Your task to perform on an android device: read, delete, or share a saved page in the chrome app Image 0: 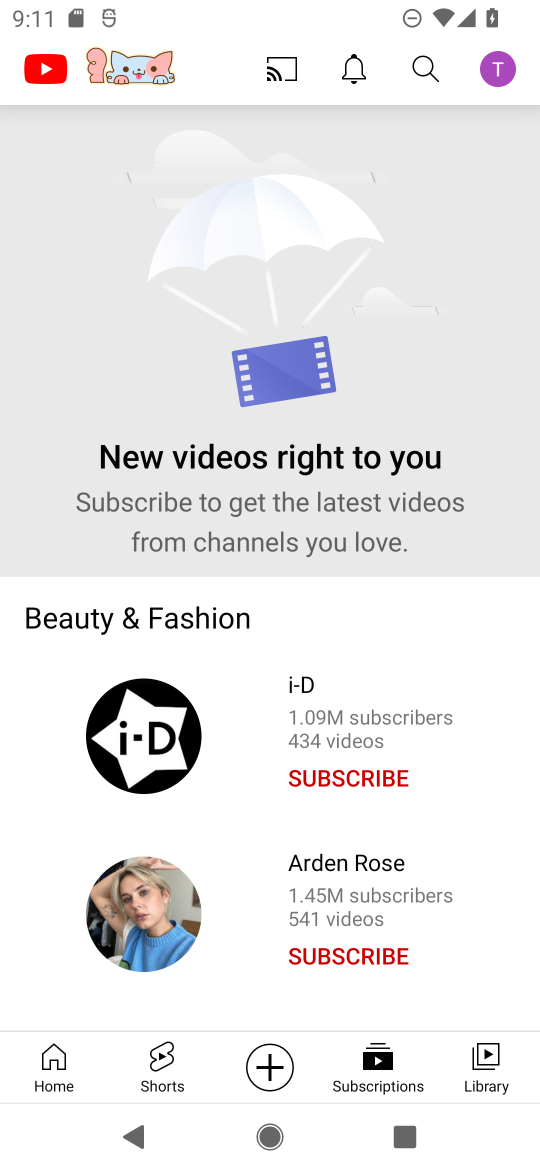
Step 0: press home button
Your task to perform on an android device: read, delete, or share a saved page in the chrome app Image 1: 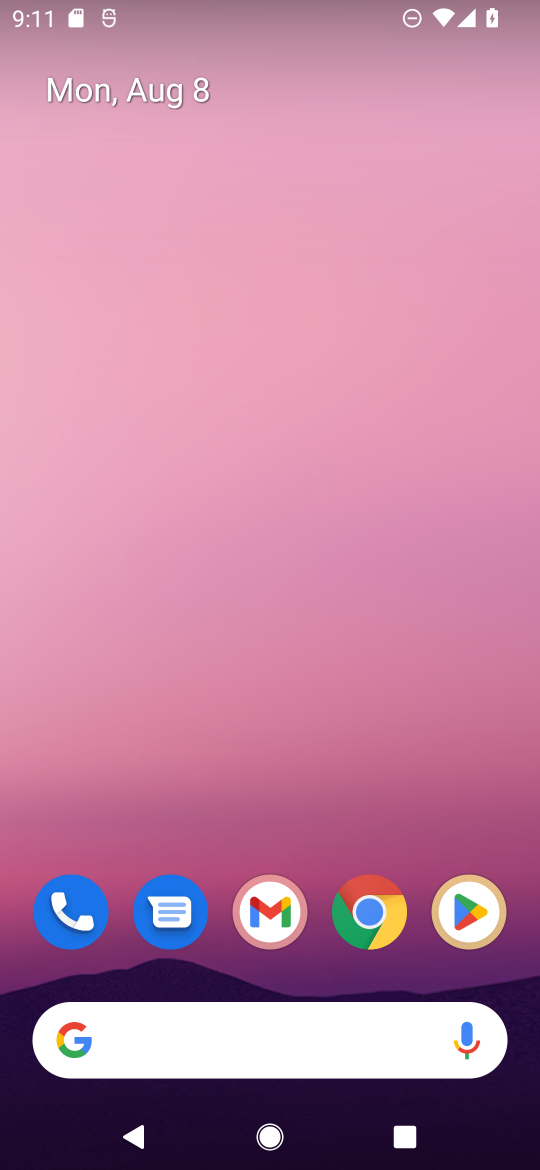
Step 1: drag from (426, 958) to (209, 56)
Your task to perform on an android device: read, delete, or share a saved page in the chrome app Image 2: 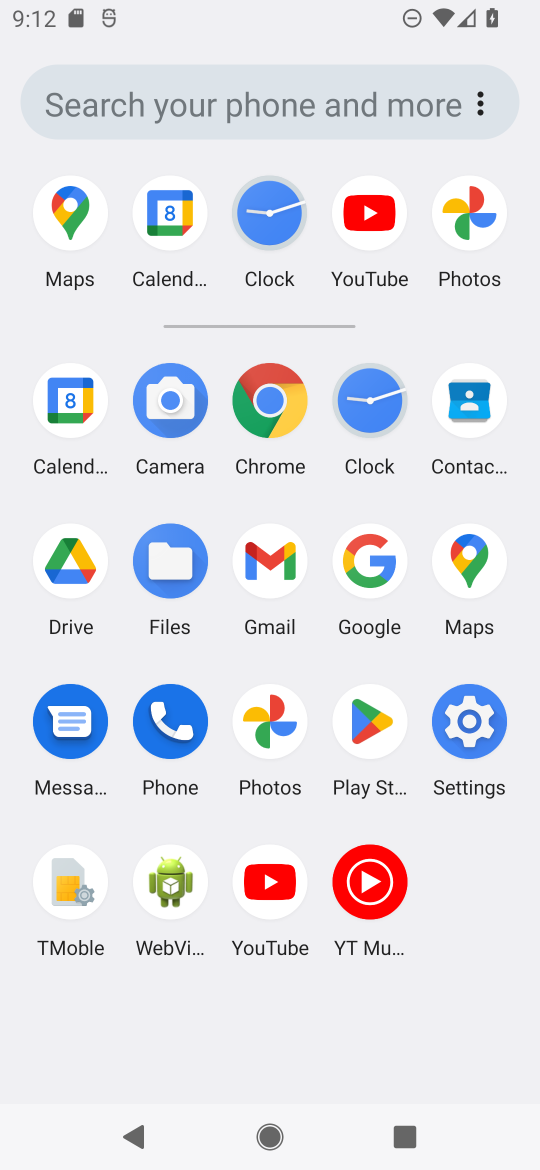
Step 2: click (258, 423)
Your task to perform on an android device: read, delete, or share a saved page in the chrome app Image 3: 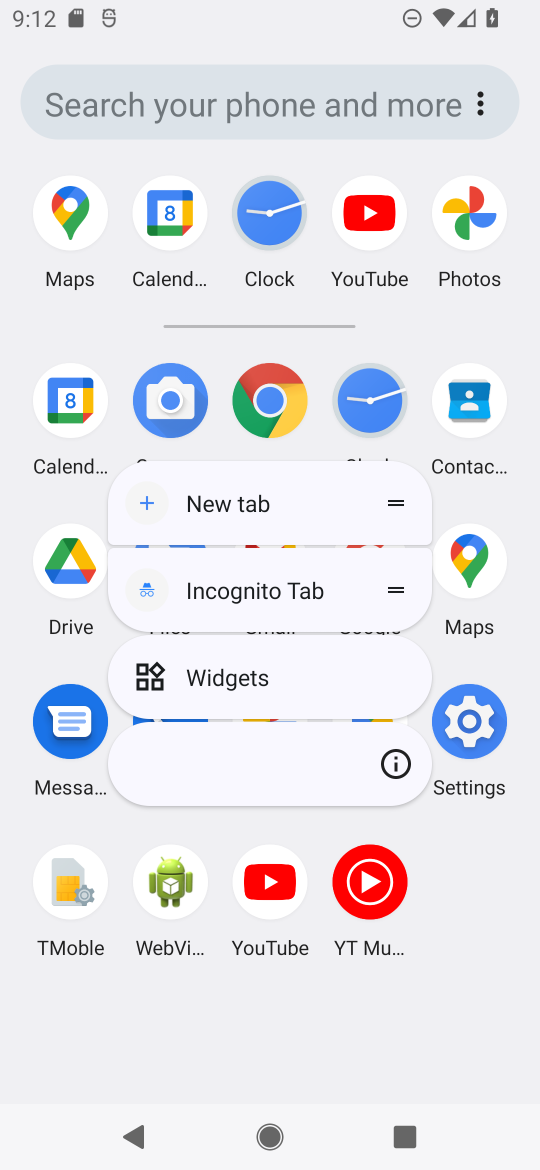
Step 3: click (260, 417)
Your task to perform on an android device: read, delete, or share a saved page in the chrome app Image 4: 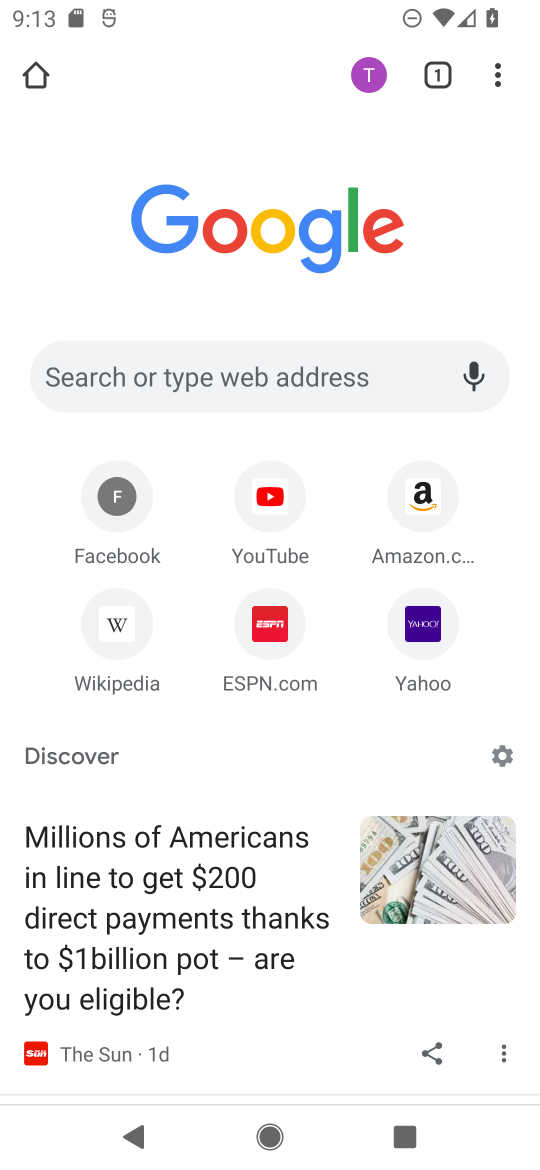
Step 4: task complete